Your task to perform on an android device: toggle notification dots Image 0: 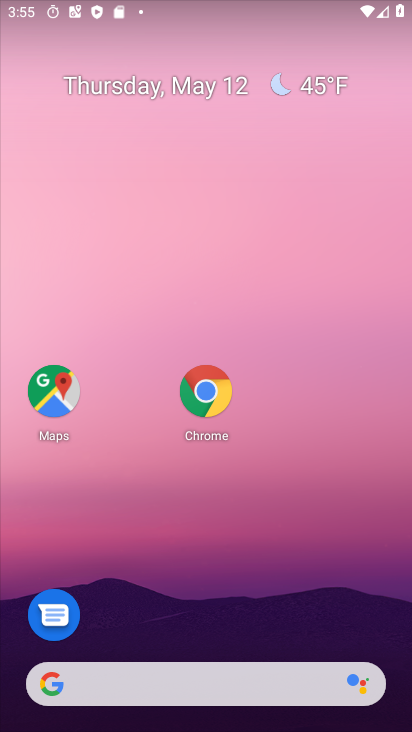
Step 0: drag from (182, 591) to (221, 73)
Your task to perform on an android device: toggle notification dots Image 1: 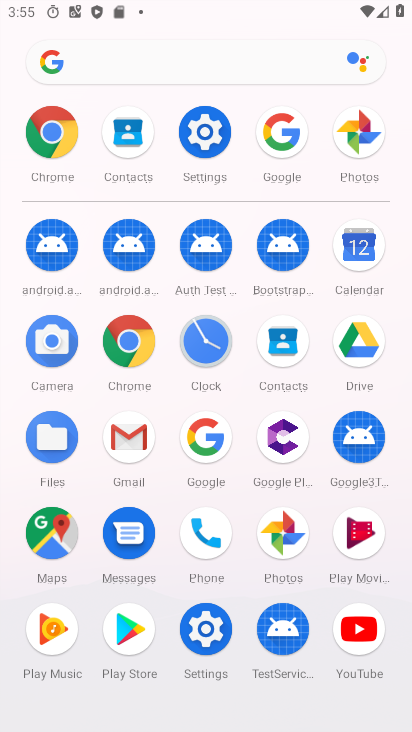
Step 1: click (205, 134)
Your task to perform on an android device: toggle notification dots Image 2: 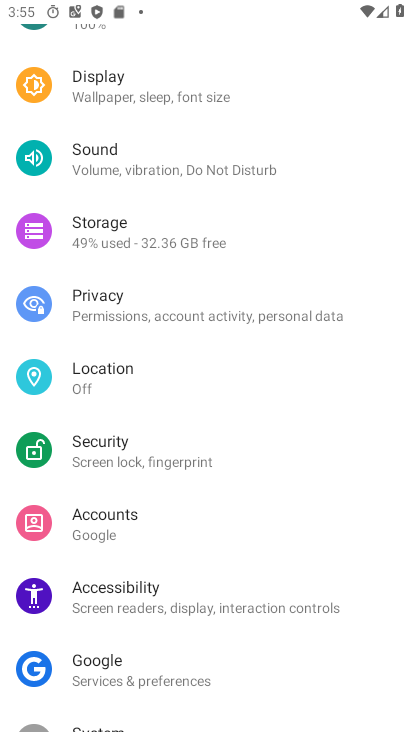
Step 2: drag from (167, 144) to (200, 573)
Your task to perform on an android device: toggle notification dots Image 3: 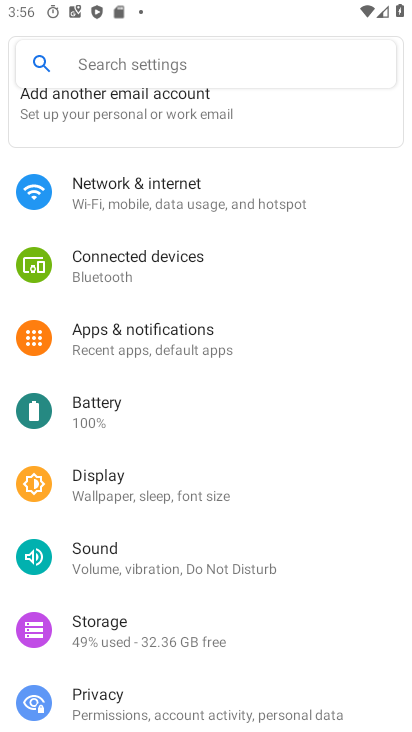
Step 3: click (154, 332)
Your task to perform on an android device: toggle notification dots Image 4: 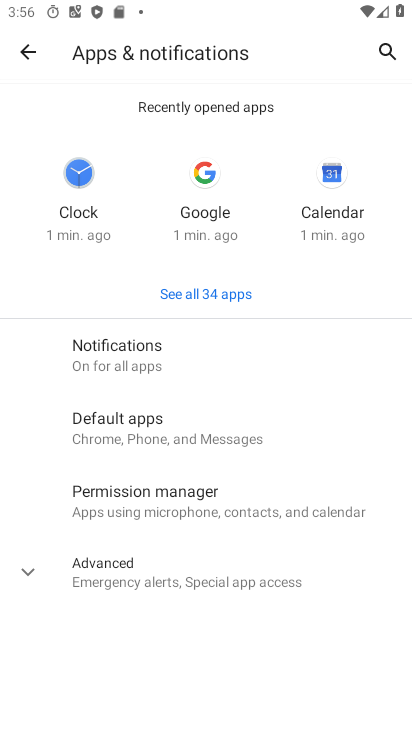
Step 4: click (161, 378)
Your task to perform on an android device: toggle notification dots Image 5: 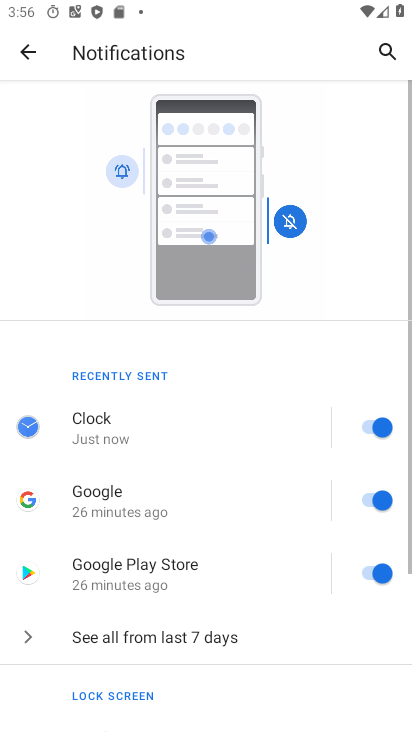
Step 5: drag from (183, 559) to (180, 54)
Your task to perform on an android device: toggle notification dots Image 6: 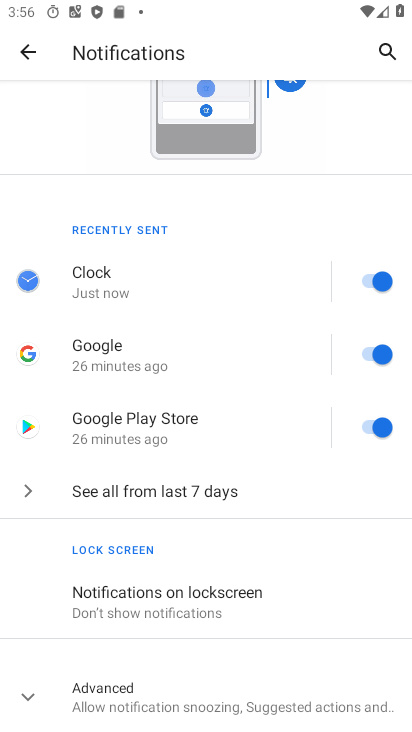
Step 6: click (65, 695)
Your task to perform on an android device: toggle notification dots Image 7: 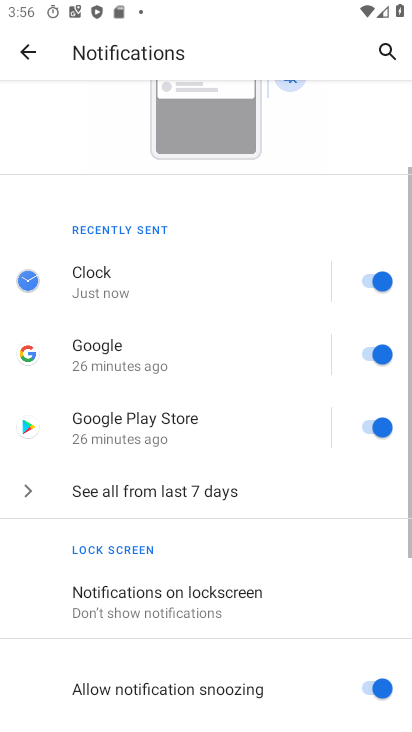
Step 7: drag from (265, 576) to (279, 127)
Your task to perform on an android device: toggle notification dots Image 8: 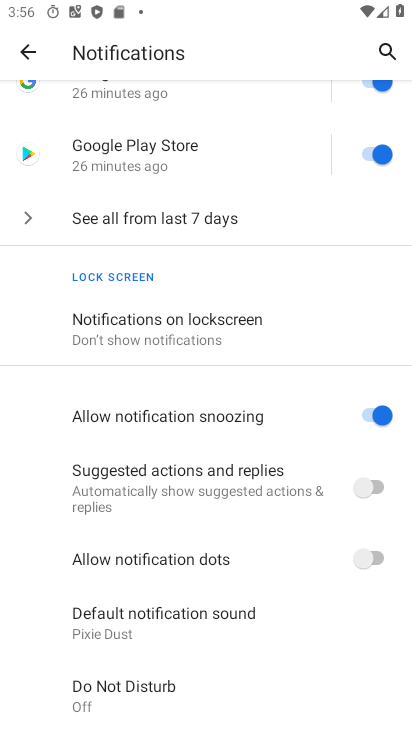
Step 8: click (370, 558)
Your task to perform on an android device: toggle notification dots Image 9: 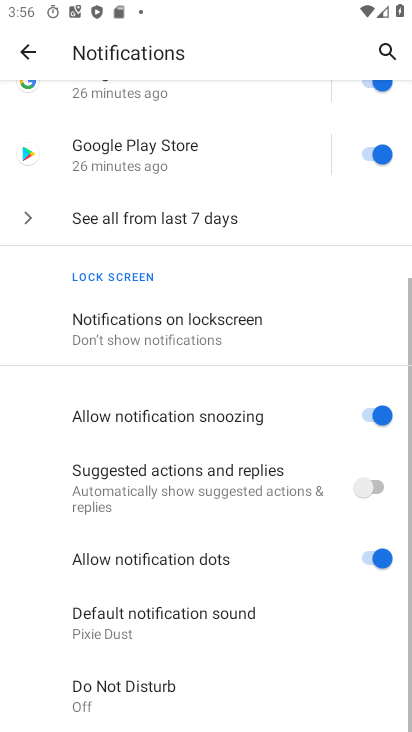
Step 9: task complete